Your task to perform on an android device: manage bookmarks in the chrome app Image 0: 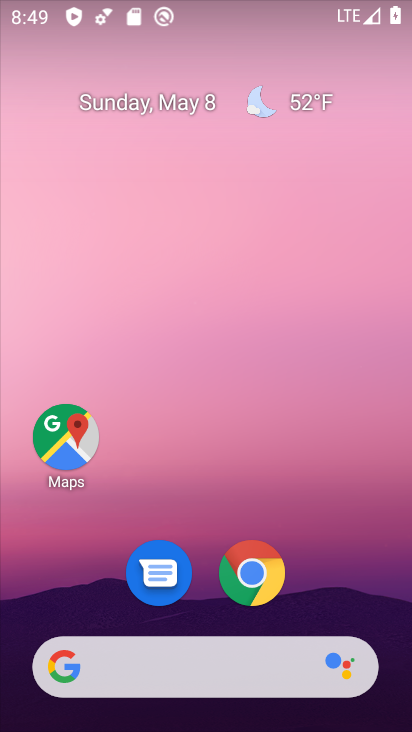
Step 0: click (248, 571)
Your task to perform on an android device: manage bookmarks in the chrome app Image 1: 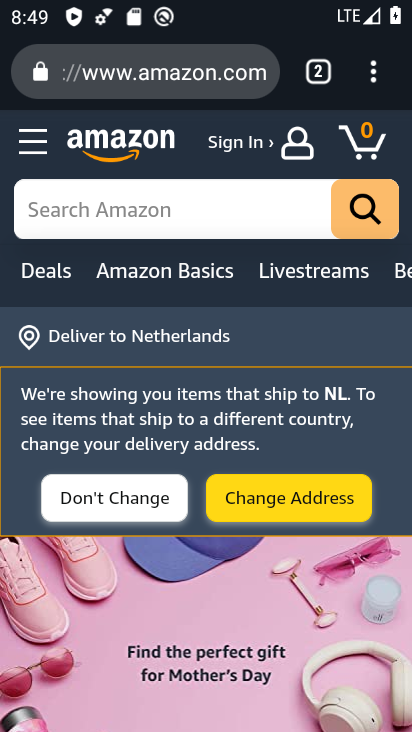
Step 1: click (377, 76)
Your task to perform on an android device: manage bookmarks in the chrome app Image 2: 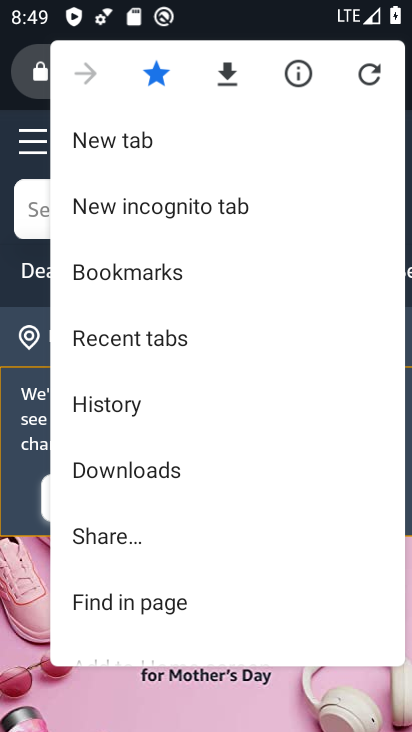
Step 2: click (140, 271)
Your task to perform on an android device: manage bookmarks in the chrome app Image 3: 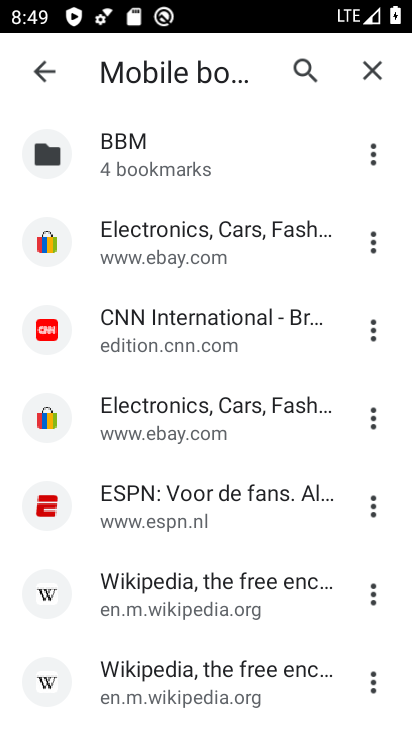
Step 3: click (373, 238)
Your task to perform on an android device: manage bookmarks in the chrome app Image 4: 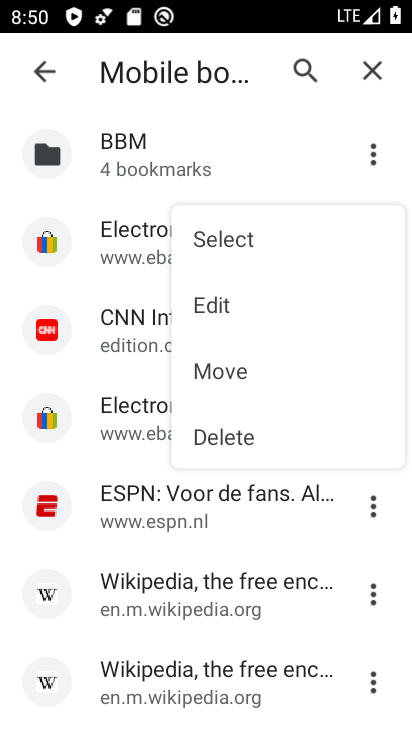
Step 4: click (210, 304)
Your task to perform on an android device: manage bookmarks in the chrome app Image 5: 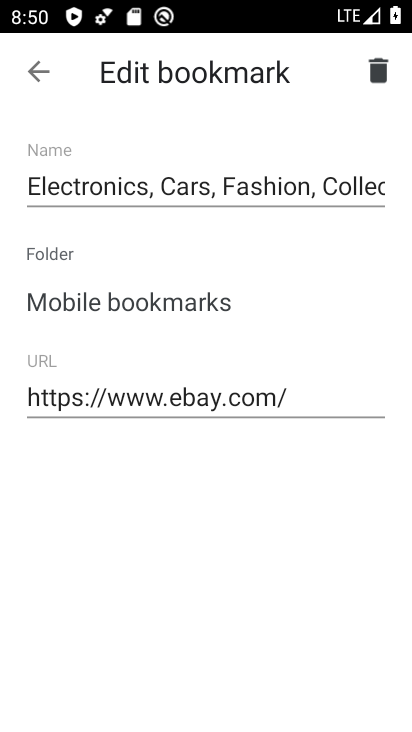
Step 5: click (210, 189)
Your task to perform on an android device: manage bookmarks in the chrome app Image 6: 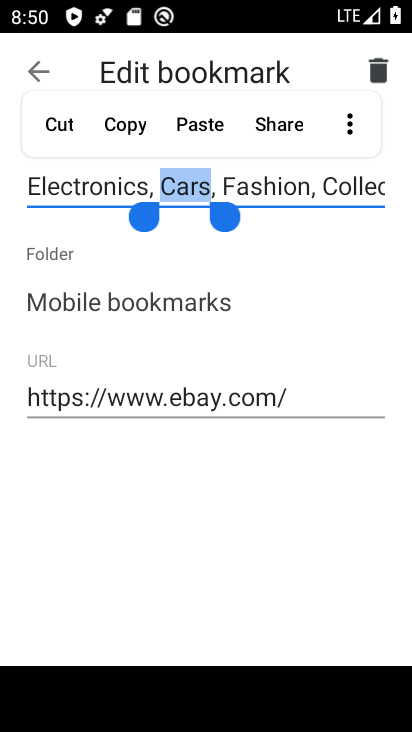
Step 6: drag from (212, 205) to (368, 241)
Your task to perform on an android device: manage bookmarks in the chrome app Image 7: 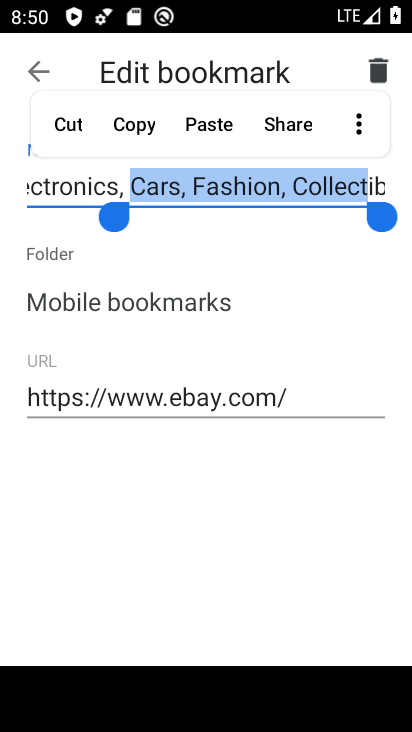
Step 7: drag from (118, 215) to (7, 198)
Your task to perform on an android device: manage bookmarks in the chrome app Image 8: 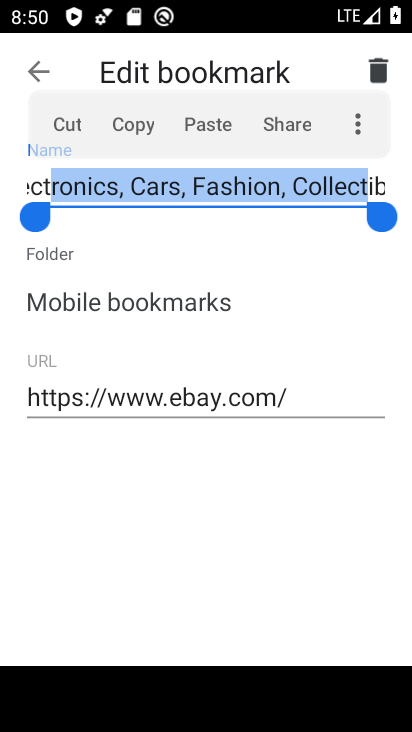
Step 8: click (42, 215)
Your task to perform on an android device: manage bookmarks in the chrome app Image 9: 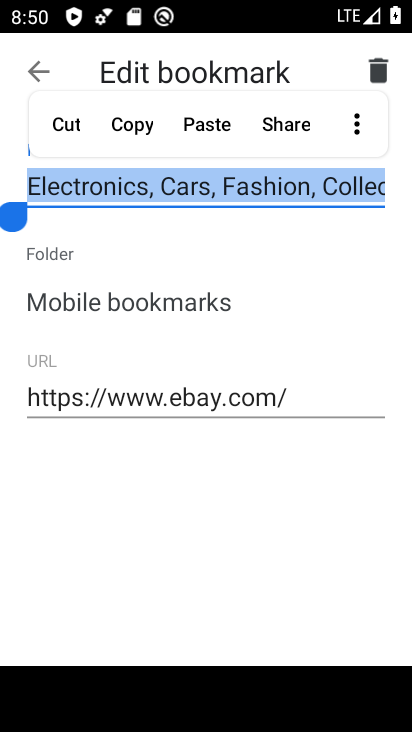
Step 9: click (64, 118)
Your task to perform on an android device: manage bookmarks in the chrome app Image 10: 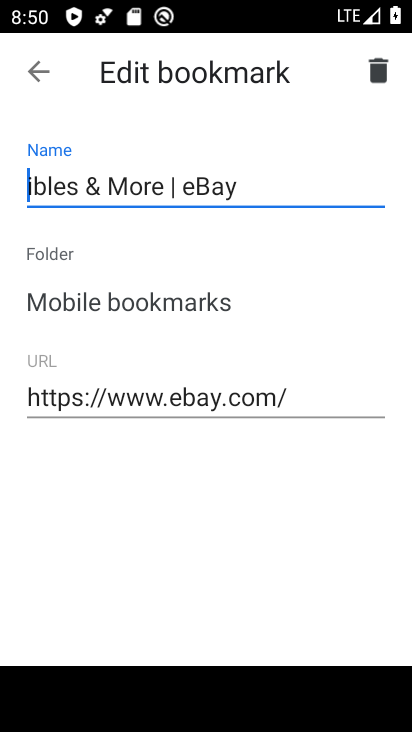
Step 10: type "all of us "
Your task to perform on an android device: manage bookmarks in the chrome app Image 11: 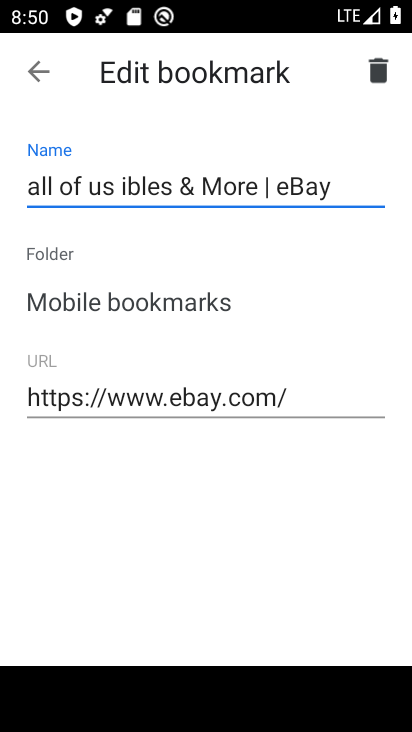
Step 11: click (37, 67)
Your task to perform on an android device: manage bookmarks in the chrome app Image 12: 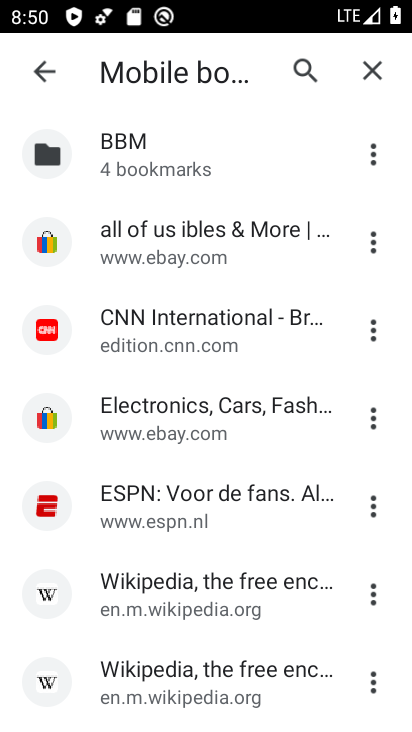
Step 12: task complete